Your task to perform on an android device: turn off smart reply in the gmail app Image 0: 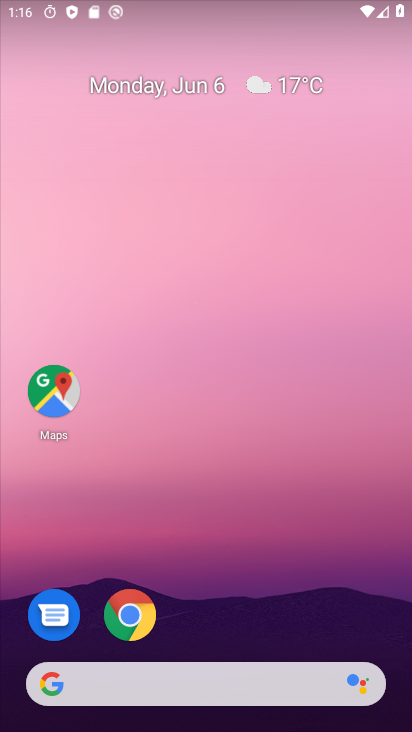
Step 0: drag from (174, 585) to (380, 7)
Your task to perform on an android device: turn off smart reply in the gmail app Image 1: 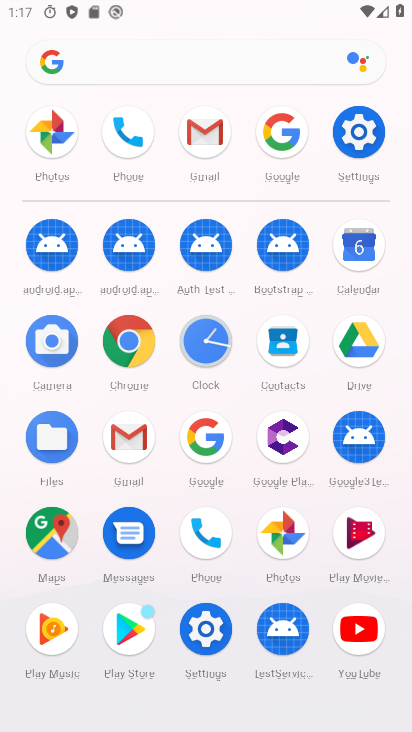
Step 1: click (127, 441)
Your task to perform on an android device: turn off smart reply in the gmail app Image 2: 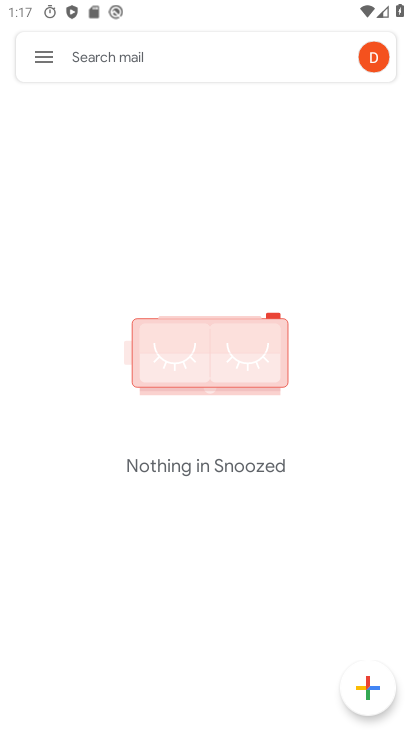
Step 2: click (55, 60)
Your task to perform on an android device: turn off smart reply in the gmail app Image 3: 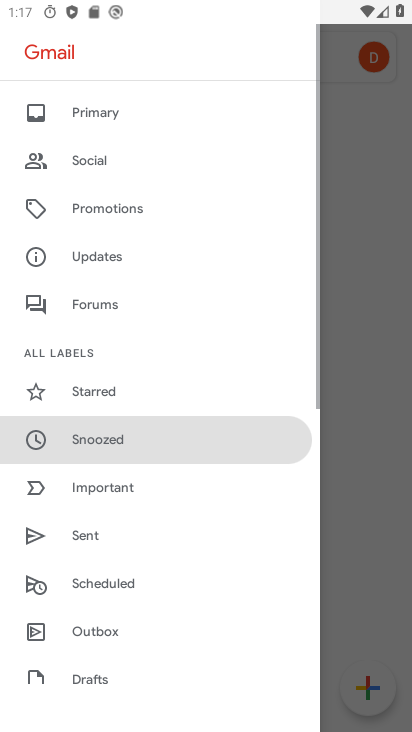
Step 3: drag from (168, 588) to (212, 43)
Your task to perform on an android device: turn off smart reply in the gmail app Image 4: 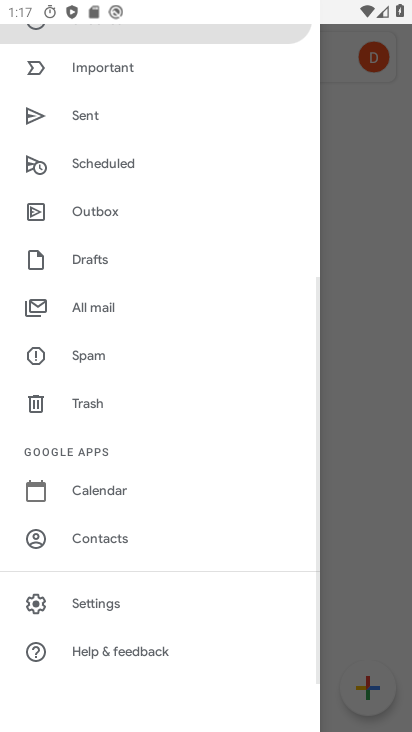
Step 4: click (134, 600)
Your task to perform on an android device: turn off smart reply in the gmail app Image 5: 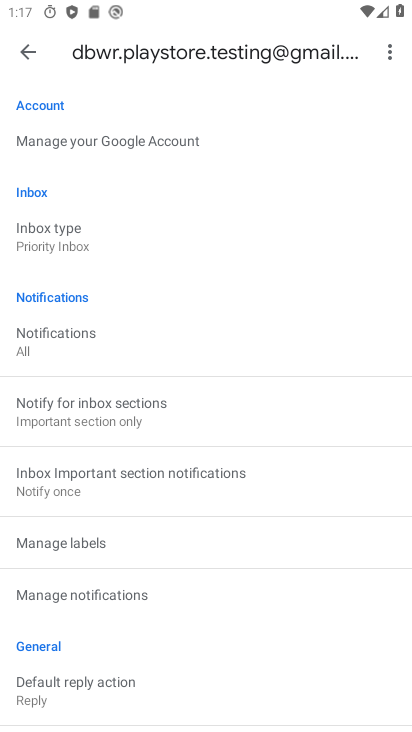
Step 5: task complete